Your task to perform on an android device: Go to Yahoo.com Image 0: 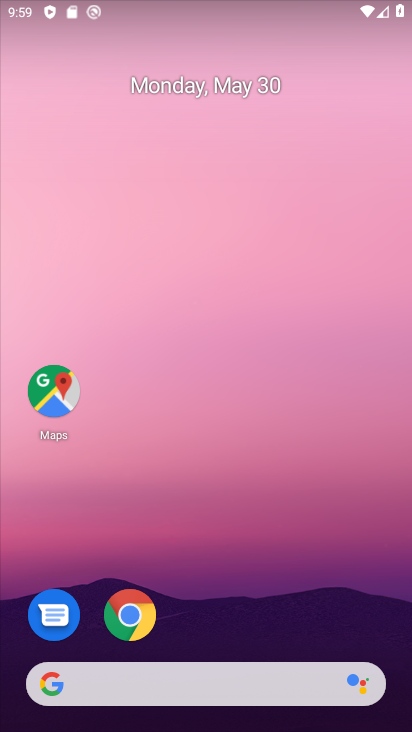
Step 0: click (129, 615)
Your task to perform on an android device: Go to Yahoo.com Image 1: 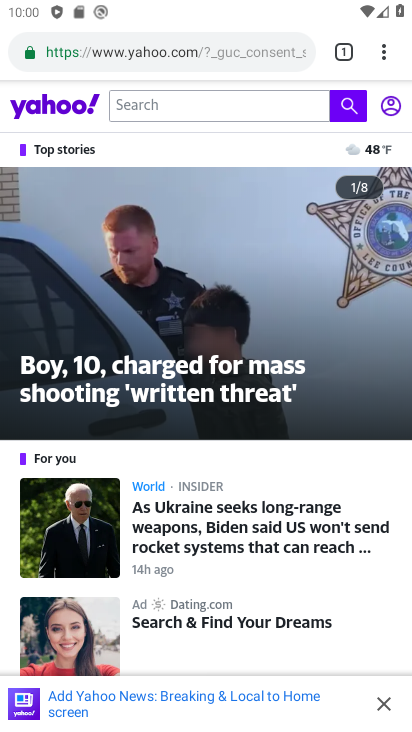
Step 1: task complete